Your task to perform on an android device: Check out the new ikea catalog. Image 0: 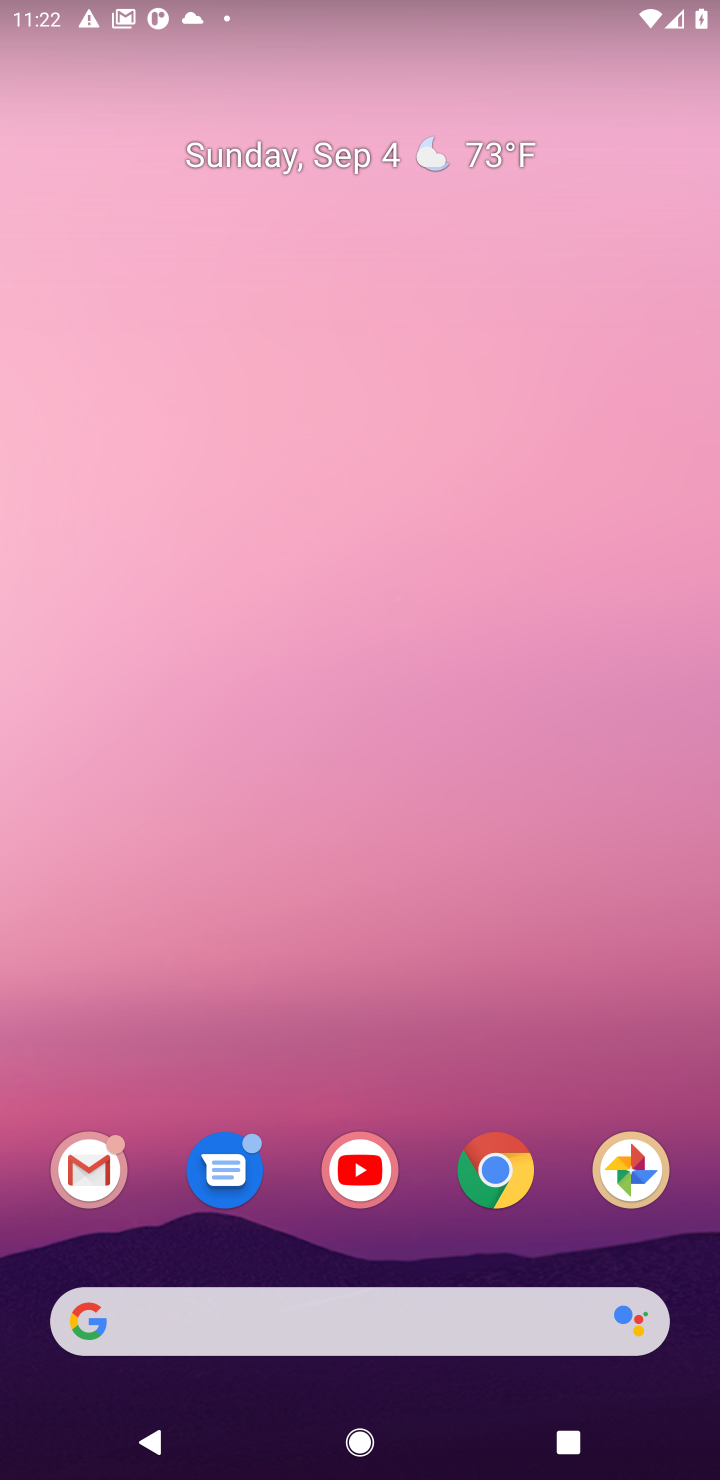
Step 0: drag from (429, 1285) to (430, 32)
Your task to perform on an android device: Check out the new ikea catalog. Image 1: 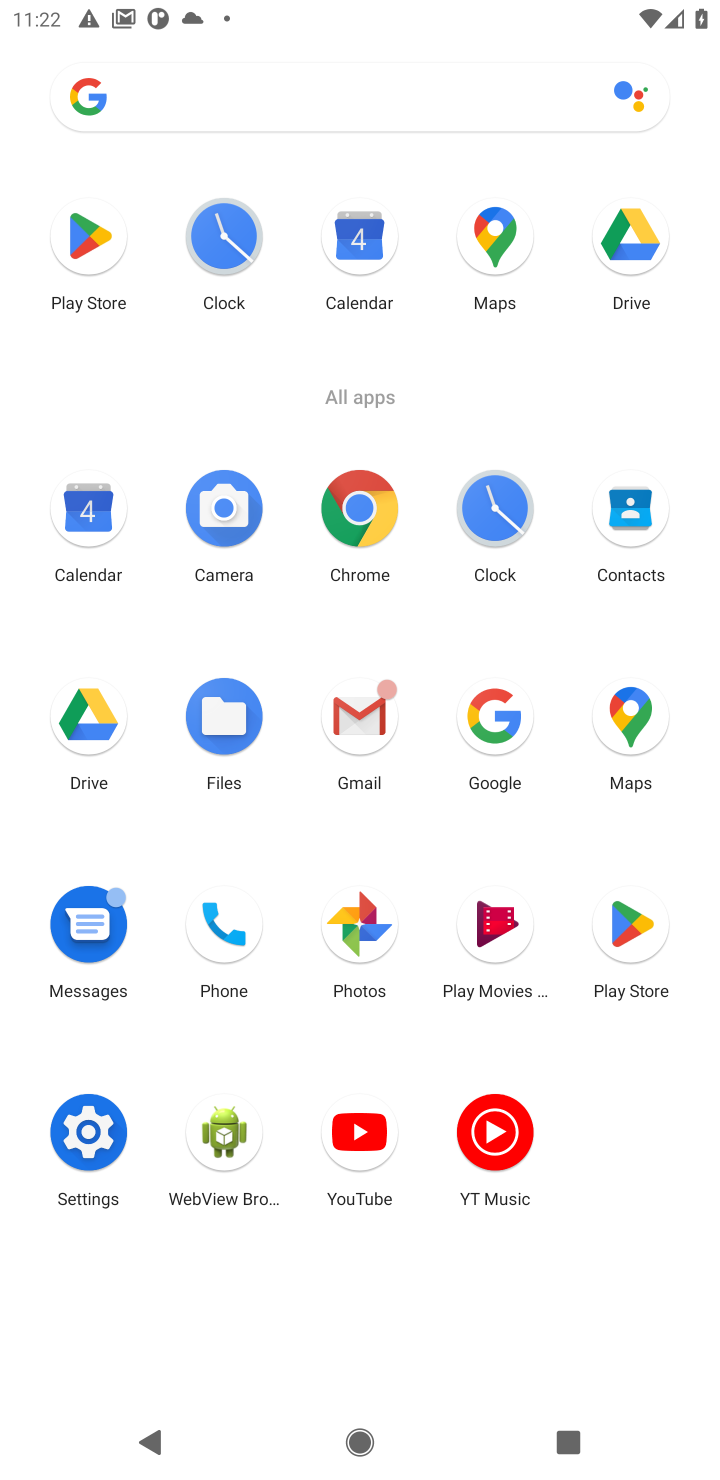
Step 1: click (510, 703)
Your task to perform on an android device: Check out the new ikea catalog. Image 2: 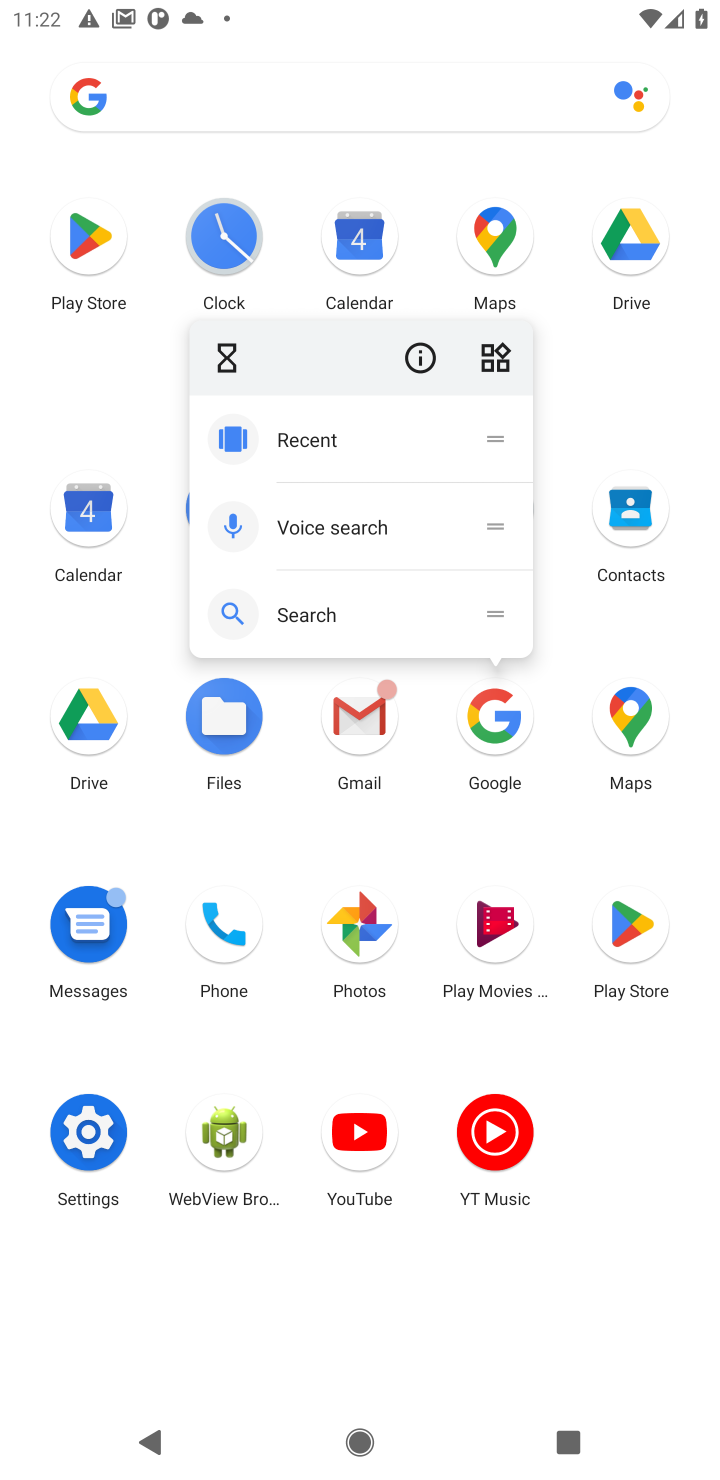
Step 2: click (453, 740)
Your task to perform on an android device: Check out the new ikea catalog. Image 3: 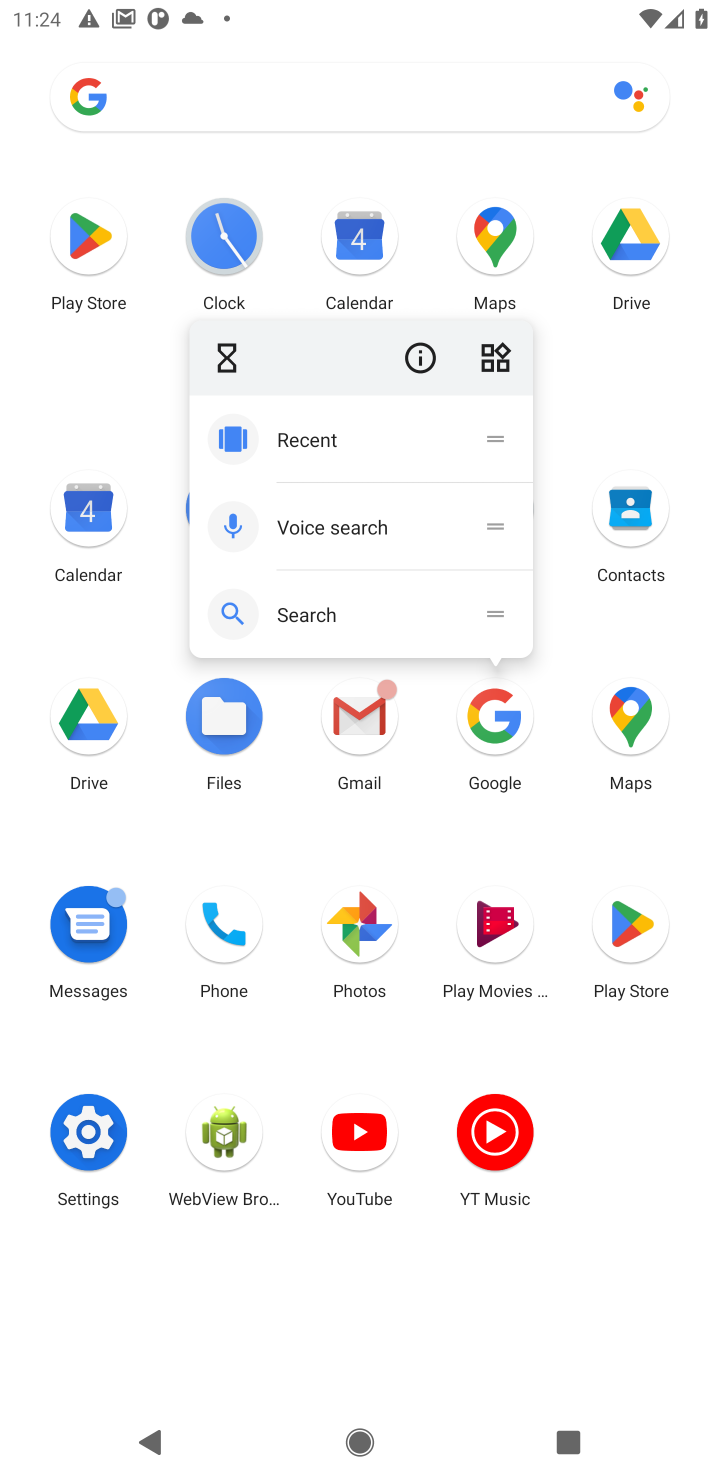
Step 3: click (511, 735)
Your task to perform on an android device: Check out the new ikea catalog. Image 4: 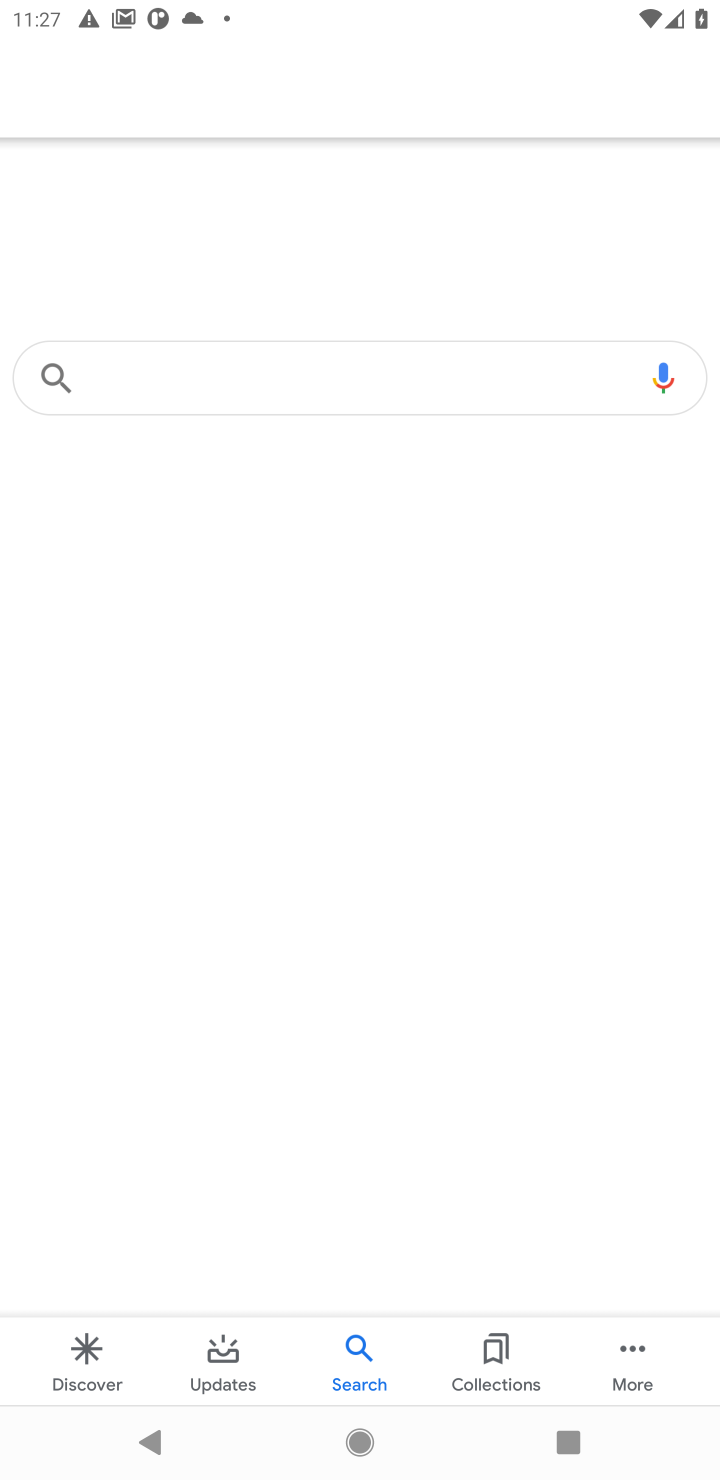
Step 4: press home button
Your task to perform on an android device: Check out the new ikea catalog. Image 5: 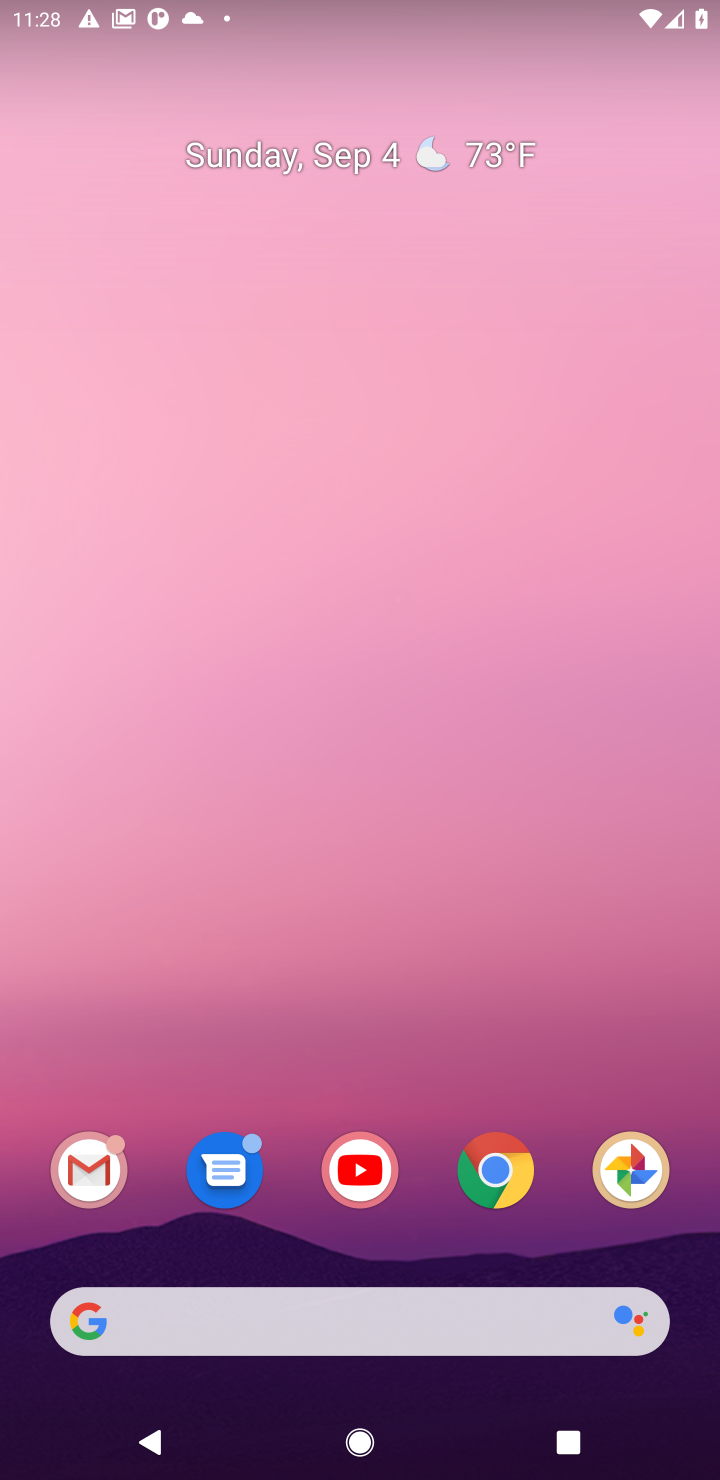
Step 5: drag from (434, 925) to (353, 68)
Your task to perform on an android device: Check out the new ikea catalog. Image 6: 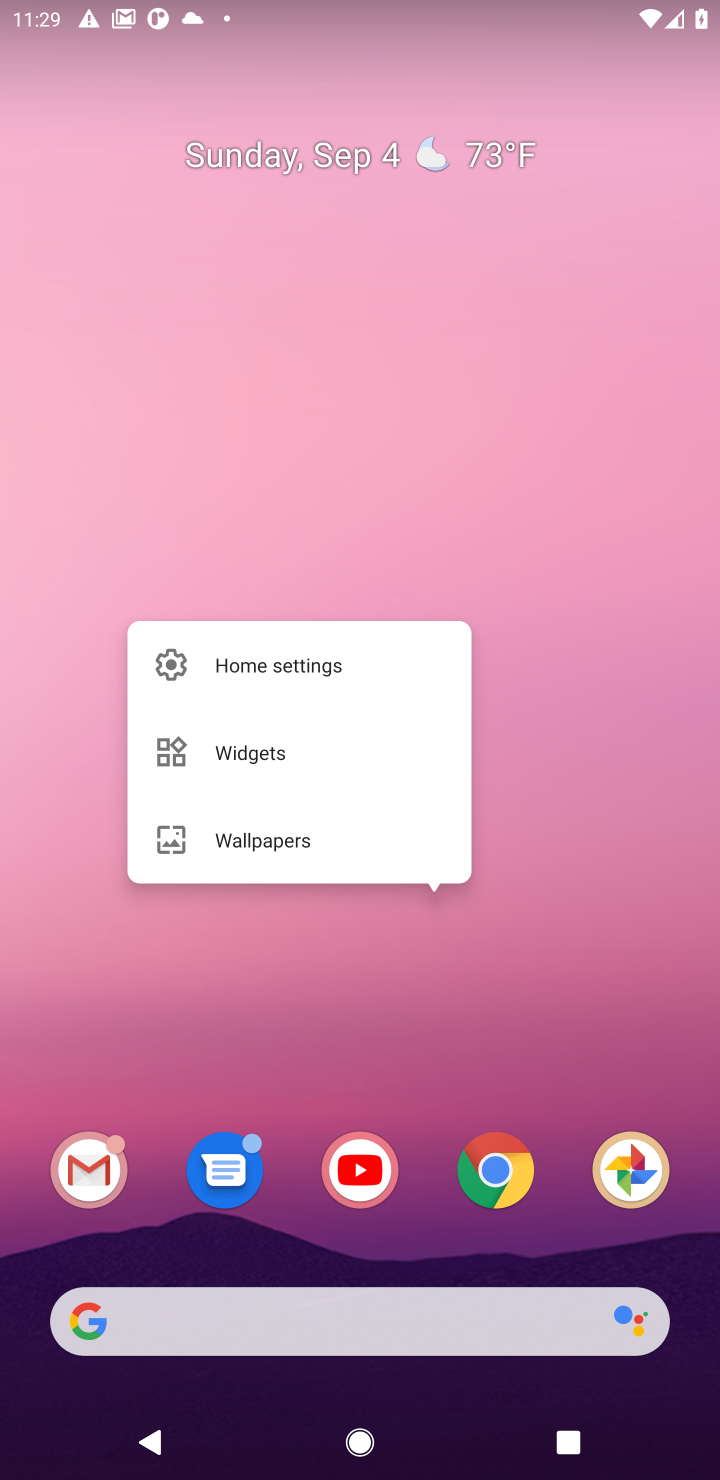
Step 6: click (446, 1059)
Your task to perform on an android device: Check out the new ikea catalog. Image 7: 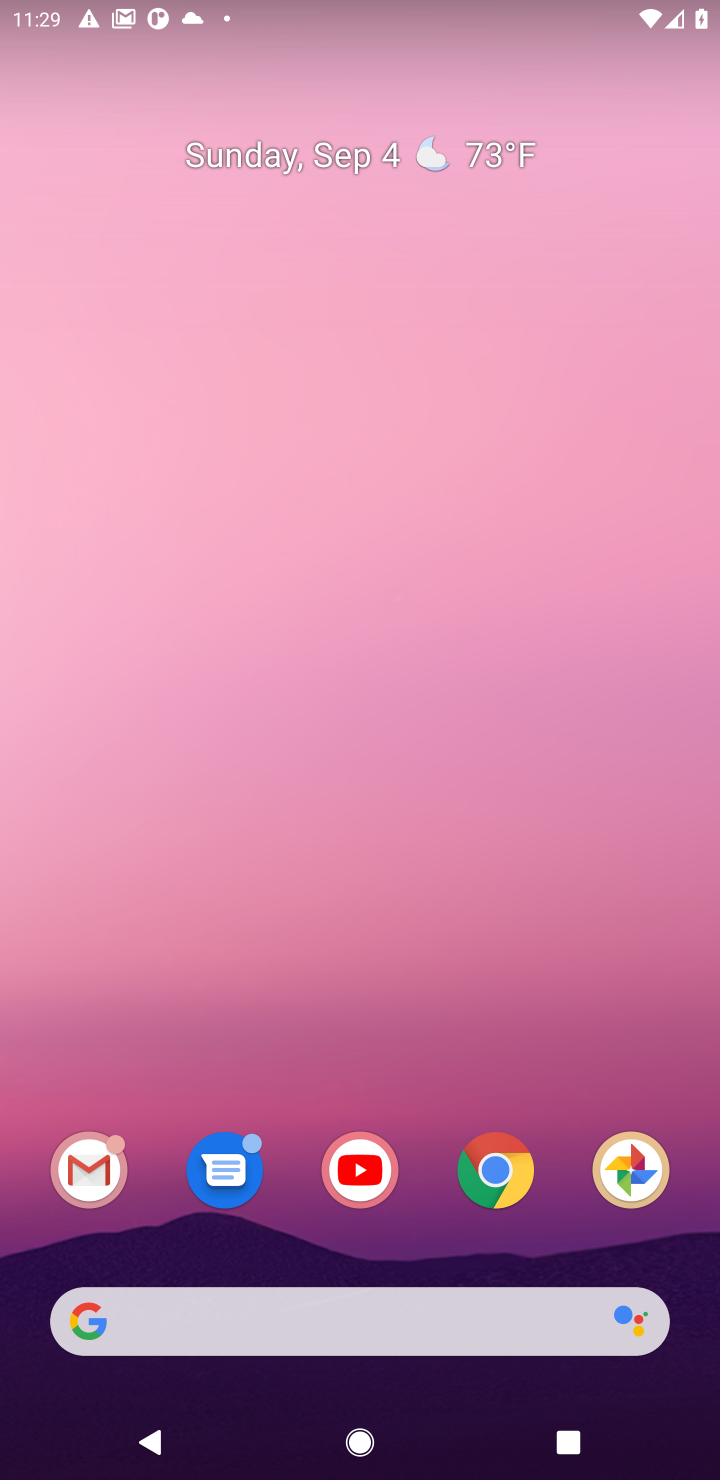
Step 7: task complete